Your task to perform on an android device: change alarm snooze length Image 0: 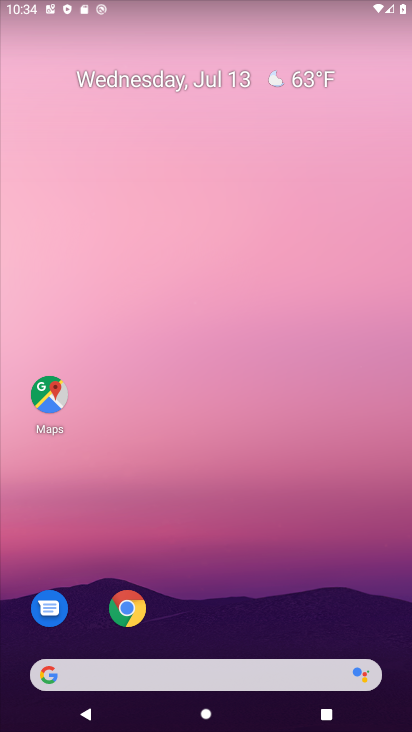
Step 0: press home button
Your task to perform on an android device: change alarm snooze length Image 1: 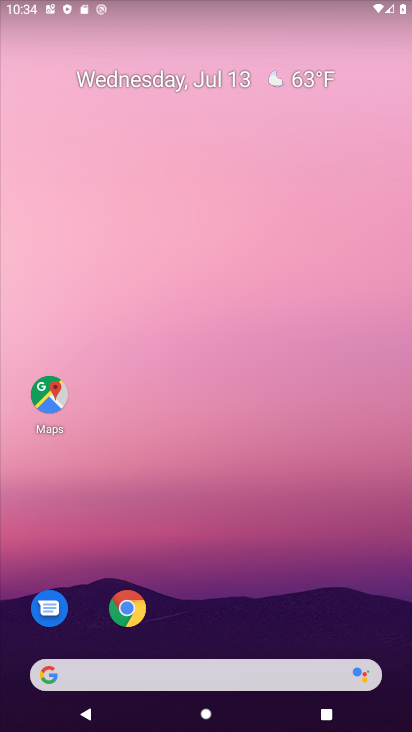
Step 1: drag from (272, 582) to (317, 18)
Your task to perform on an android device: change alarm snooze length Image 2: 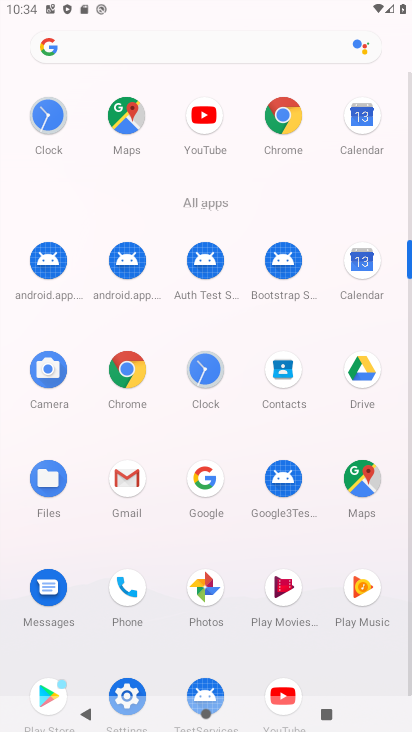
Step 2: click (207, 366)
Your task to perform on an android device: change alarm snooze length Image 3: 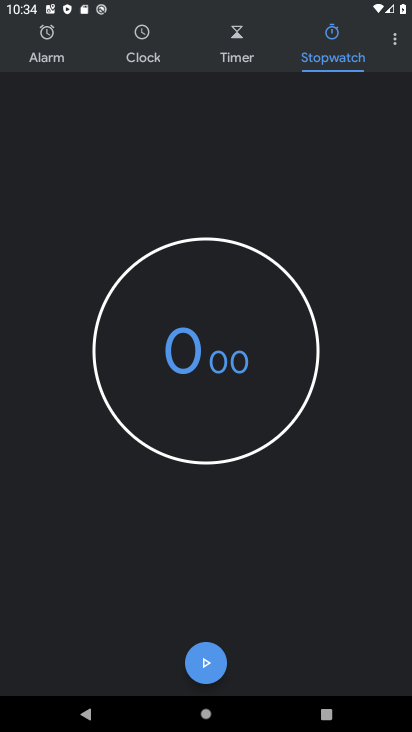
Step 3: click (394, 42)
Your task to perform on an android device: change alarm snooze length Image 4: 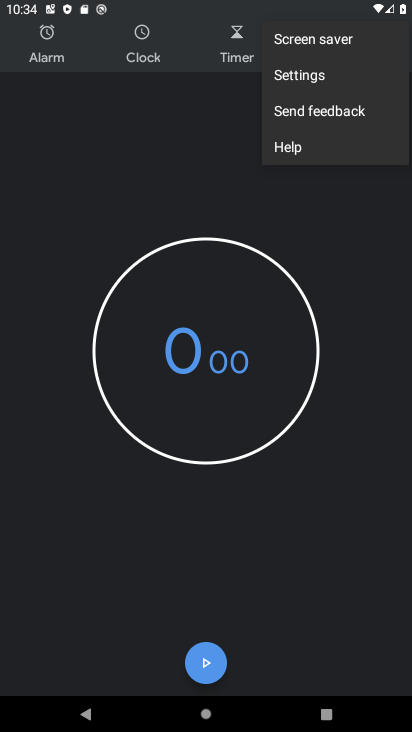
Step 4: click (313, 73)
Your task to perform on an android device: change alarm snooze length Image 5: 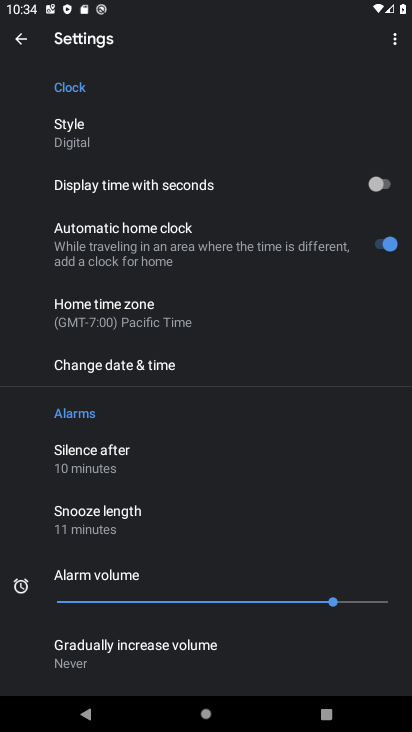
Step 5: click (132, 512)
Your task to perform on an android device: change alarm snooze length Image 6: 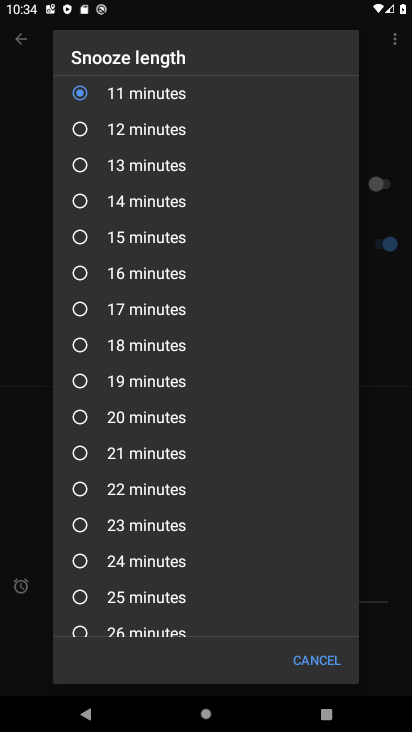
Step 6: click (133, 136)
Your task to perform on an android device: change alarm snooze length Image 7: 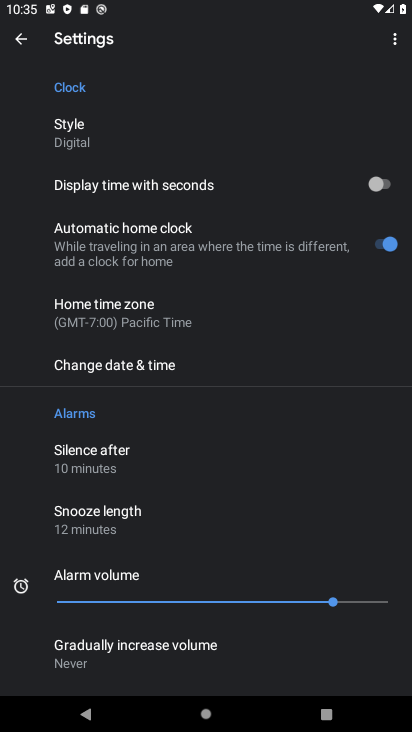
Step 7: task complete